Your task to perform on an android device: snooze an email in the gmail app Image 0: 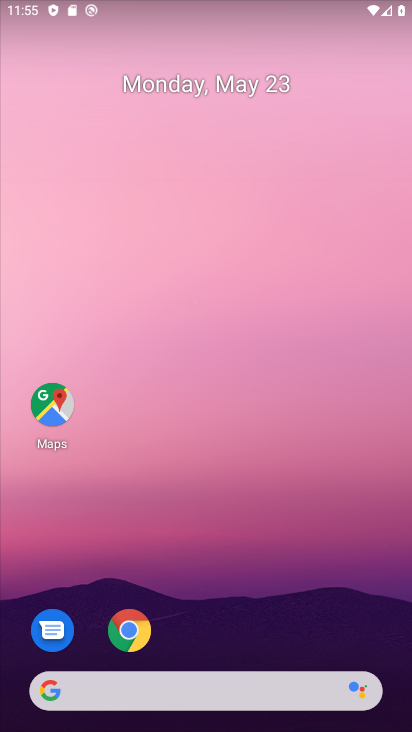
Step 0: drag from (313, 594) to (342, 238)
Your task to perform on an android device: snooze an email in the gmail app Image 1: 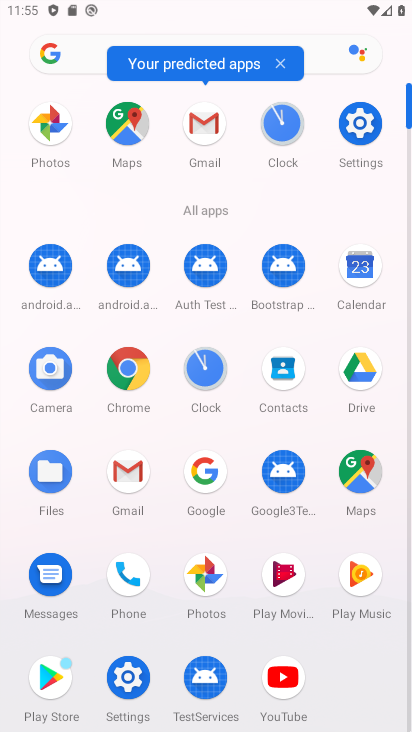
Step 1: click (121, 477)
Your task to perform on an android device: snooze an email in the gmail app Image 2: 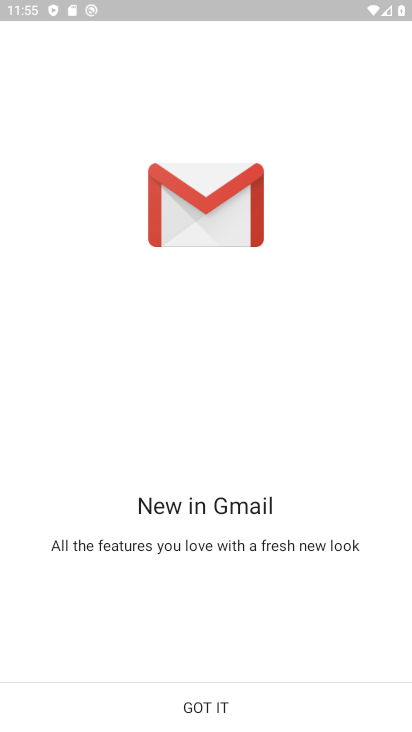
Step 2: click (212, 714)
Your task to perform on an android device: snooze an email in the gmail app Image 3: 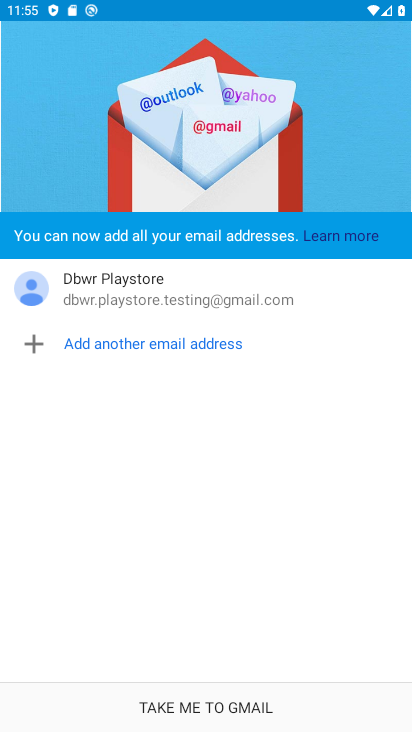
Step 3: click (204, 706)
Your task to perform on an android device: snooze an email in the gmail app Image 4: 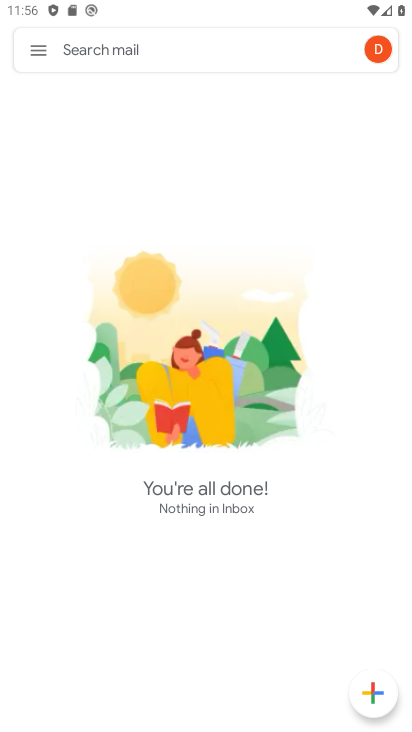
Step 4: click (45, 58)
Your task to perform on an android device: snooze an email in the gmail app Image 5: 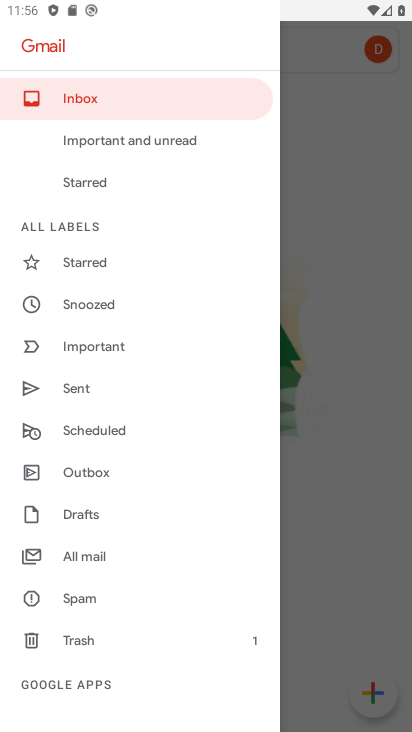
Step 5: click (102, 563)
Your task to perform on an android device: snooze an email in the gmail app Image 6: 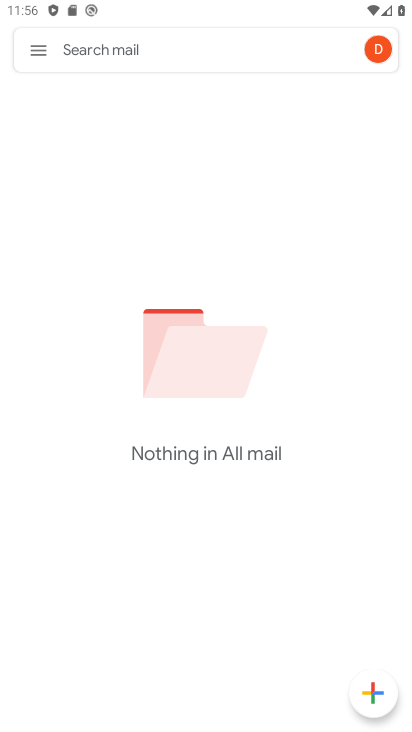
Step 6: task complete